Your task to perform on an android device: Open accessibility settings Image 0: 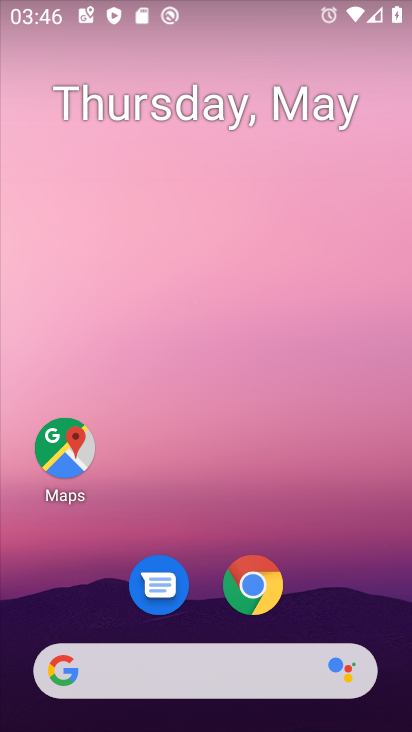
Step 0: drag from (250, 484) to (240, 66)
Your task to perform on an android device: Open accessibility settings Image 1: 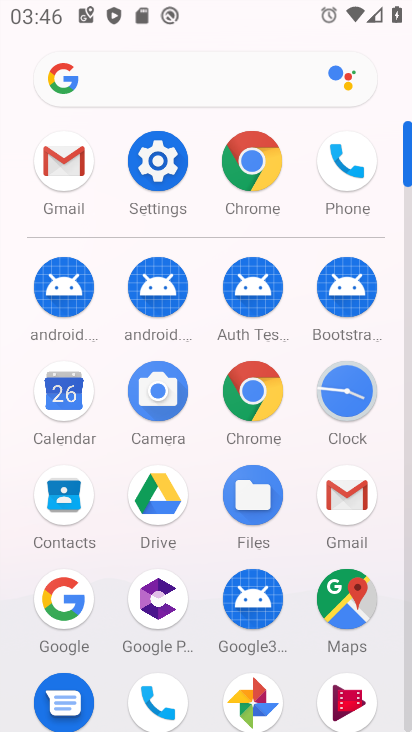
Step 1: click (159, 157)
Your task to perform on an android device: Open accessibility settings Image 2: 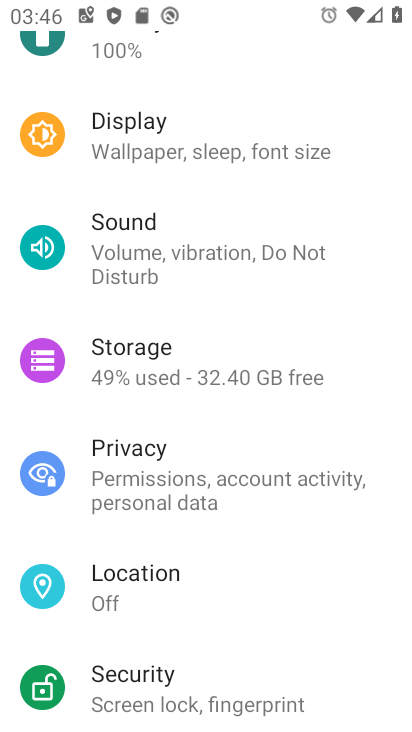
Step 2: drag from (212, 576) to (233, 135)
Your task to perform on an android device: Open accessibility settings Image 3: 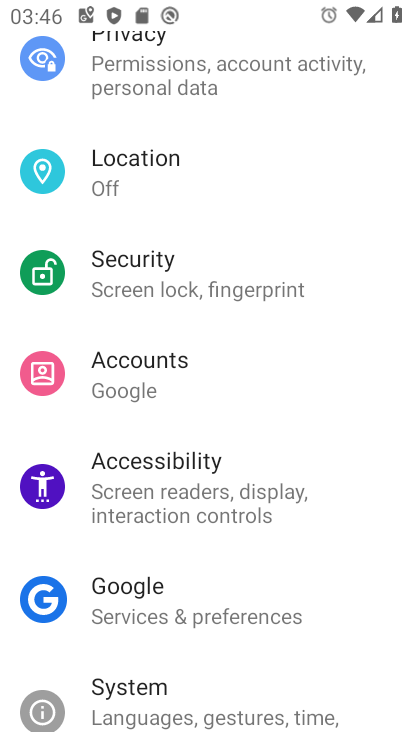
Step 3: click (220, 485)
Your task to perform on an android device: Open accessibility settings Image 4: 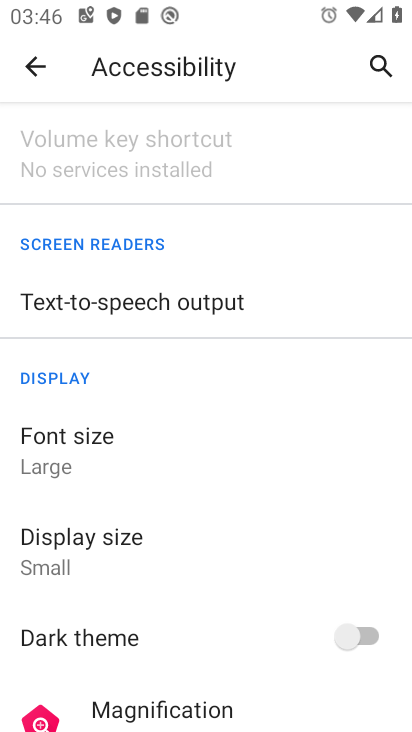
Step 4: task complete